Your task to perform on an android device: Open privacy settings Image 0: 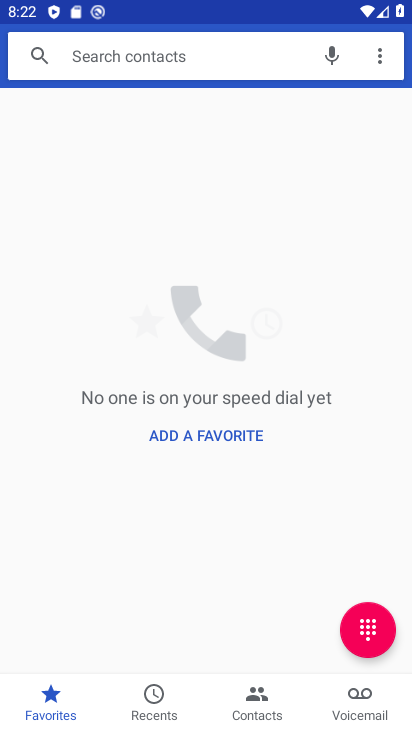
Step 0: press back button
Your task to perform on an android device: Open privacy settings Image 1: 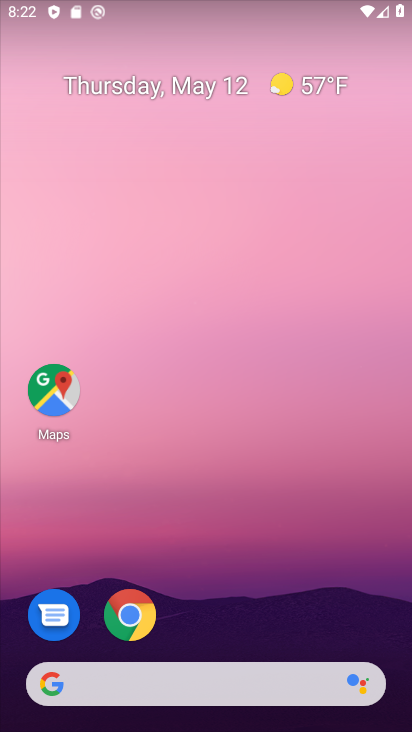
Step 1: drag from (274, 579) to (65, 0)
Your task to perform on an android device: Open privacy settings Image 2: 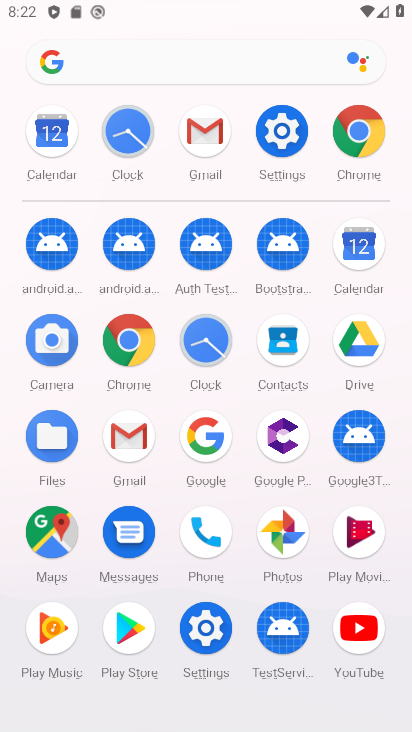
Step 2: click (131, 336)
Your task to perform on an android device: Open privacy settings Image 3: 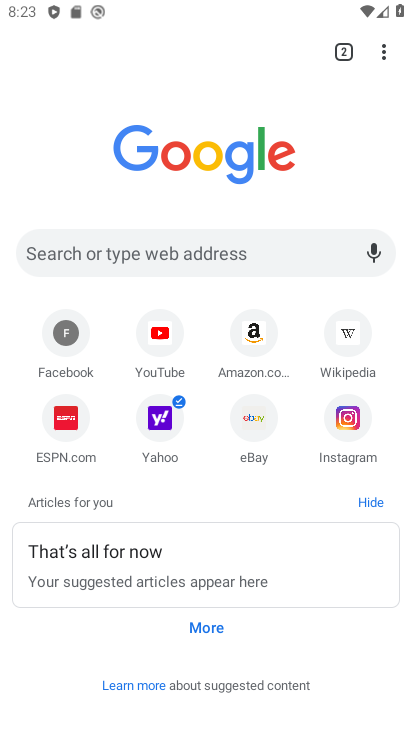
Step 3: drag from (384, 57) to (232, 429)
Your task to perform on an android device: Open privacy settings Image 4: 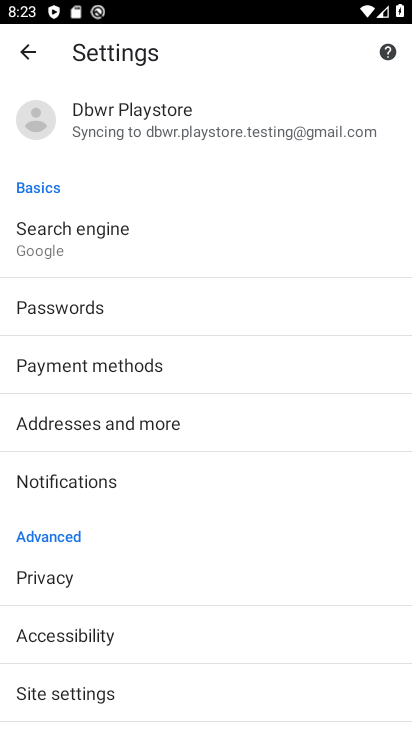
Step 4: click (79, 584)
Your task to perform on an android device: Open privacy settings Image 5: 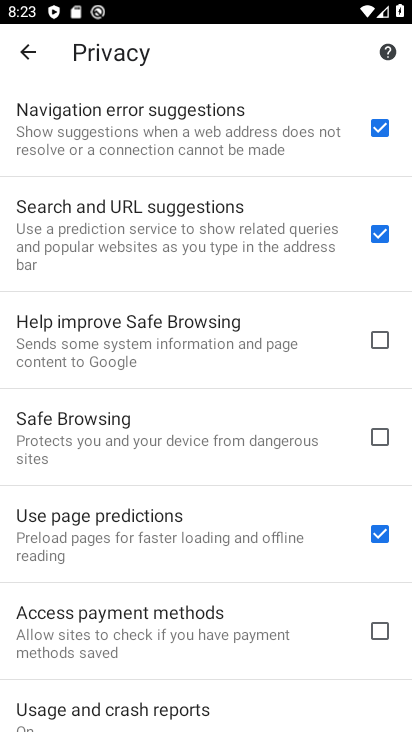
Step 5: task complete